Your task to perform on an android device: empty trash in google photos Image 0: 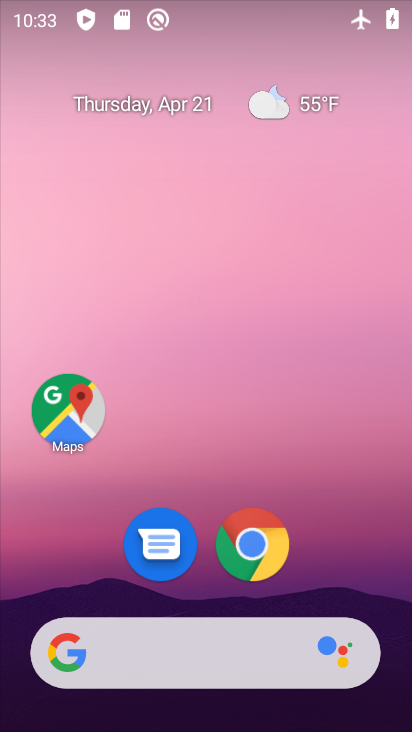
Step 0: drag from (299, 423) to (252, 13)
Your task to perform on an android device: empty trash in google photos Image 1: 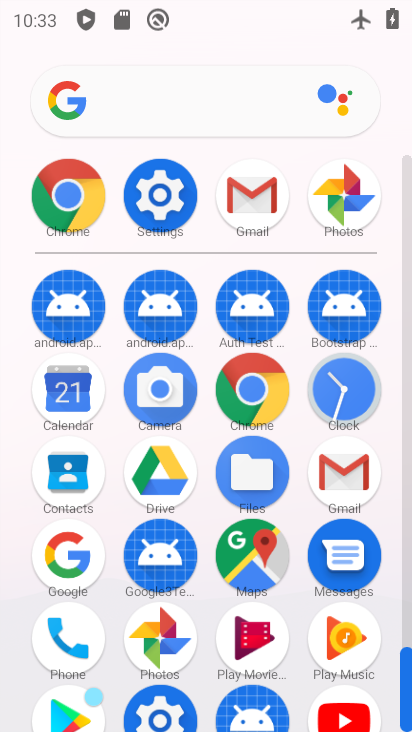
Step 1: drag from (9, 559) to (12, 361)
Your task to perform on an android device: empty trash in google photos Image 2: 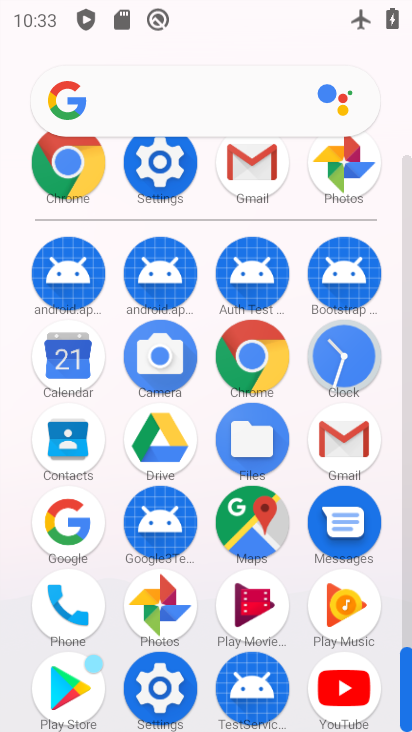
Step 2: click (159, 606)
Your task to perform on an android device: empty trash in google photos Image 3: 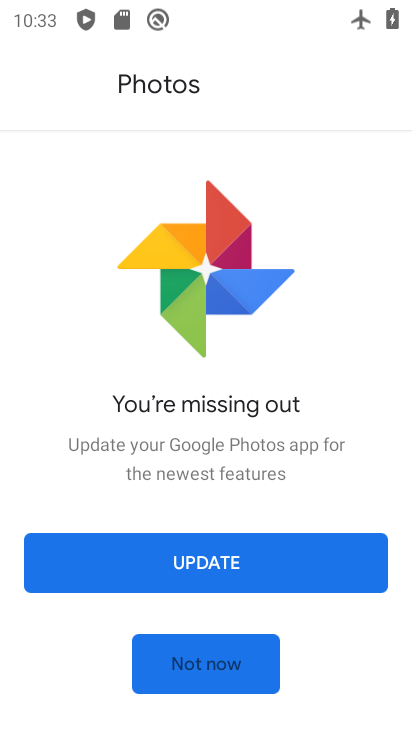
Step 3: click (194, 683)
Your task to perform on an android device: empty trash in google photos Image 4: 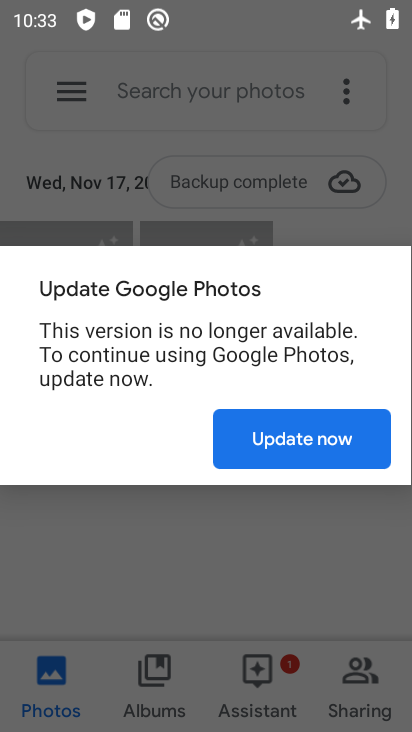
Step 4: click (287, 439)
Your task to perform on an android device: empty trash in google photos Image 5: 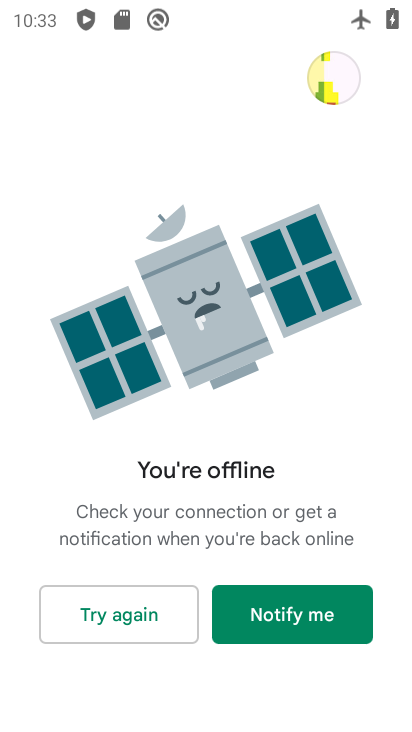
Step 5: click (173, 623)
Your task to perform on an android device: empty trash in google photos Image 6: 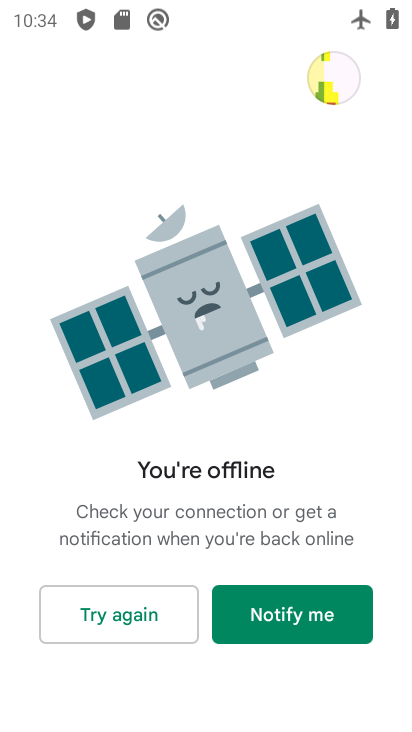
Step 6: click (59, 618)
Your task to perform on an android device: empty trash in google photos Image 7: 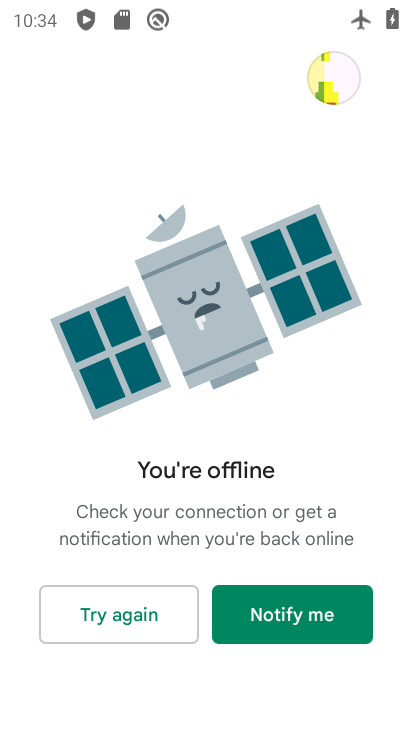
Step 7: task complete